Your task to perform on an android device: Open the map Image 0: 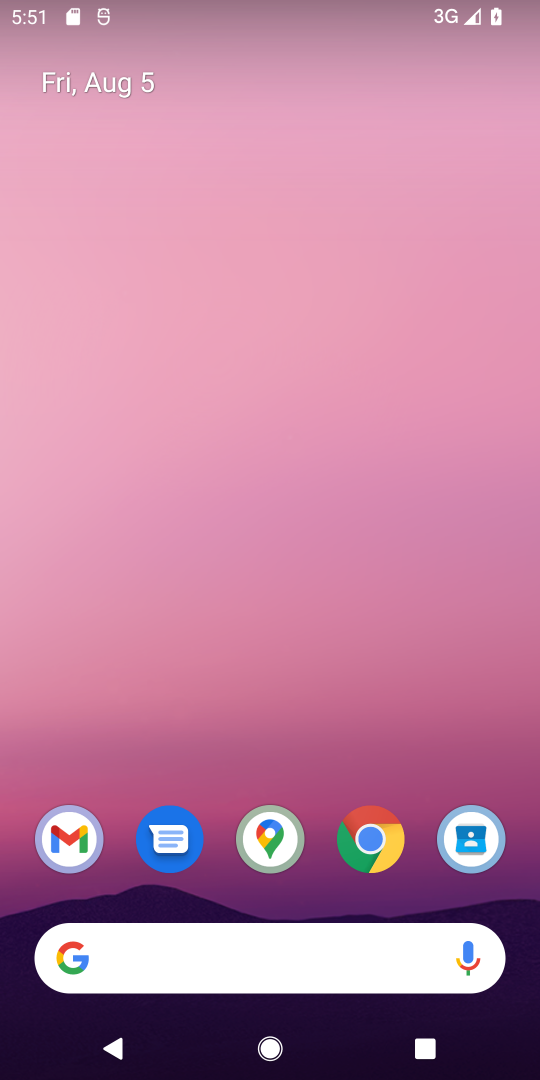
Step 0: click (254, 843)
Your task to perform on an android device: Open the map Image 1: 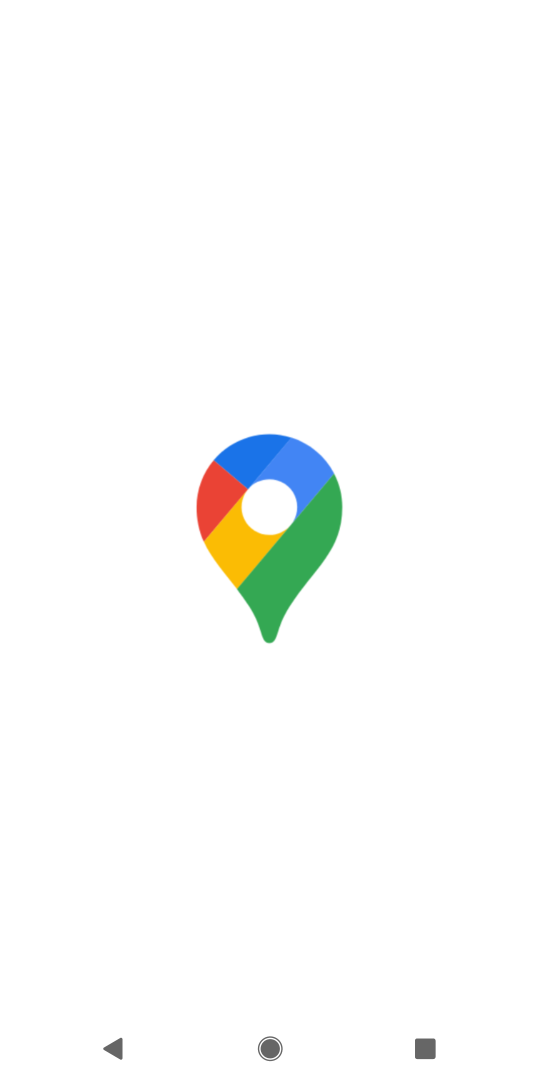
Step 1: task complete